Your task to perform on an android device: open the mobile data screen to see how much data has been used Image 0: 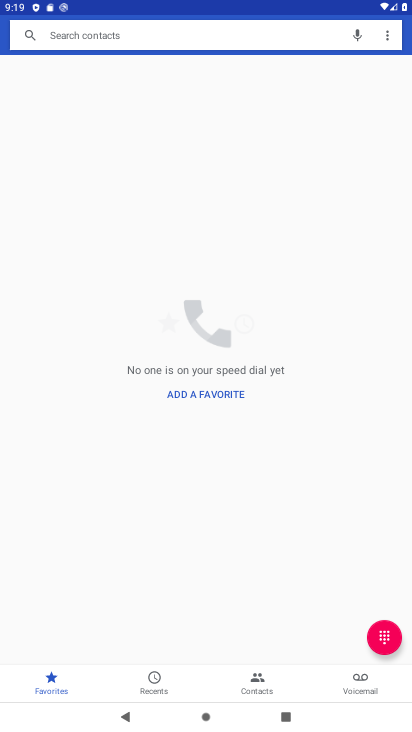
Step 0: task complete